Your task to perform on an android device: Open the Play Movies app and select the watchlist tab. Image 0: 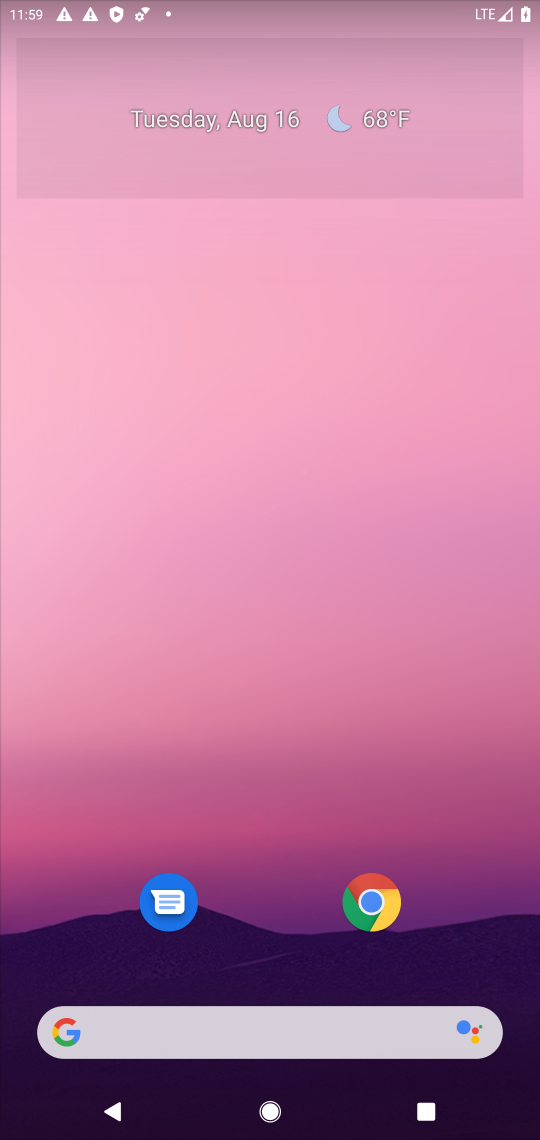
Step 0: drag from (254, 991) to (145, 34)
Your task to perform on an android device: Open the Play Movies app and select the watchlist tab. Image 1: 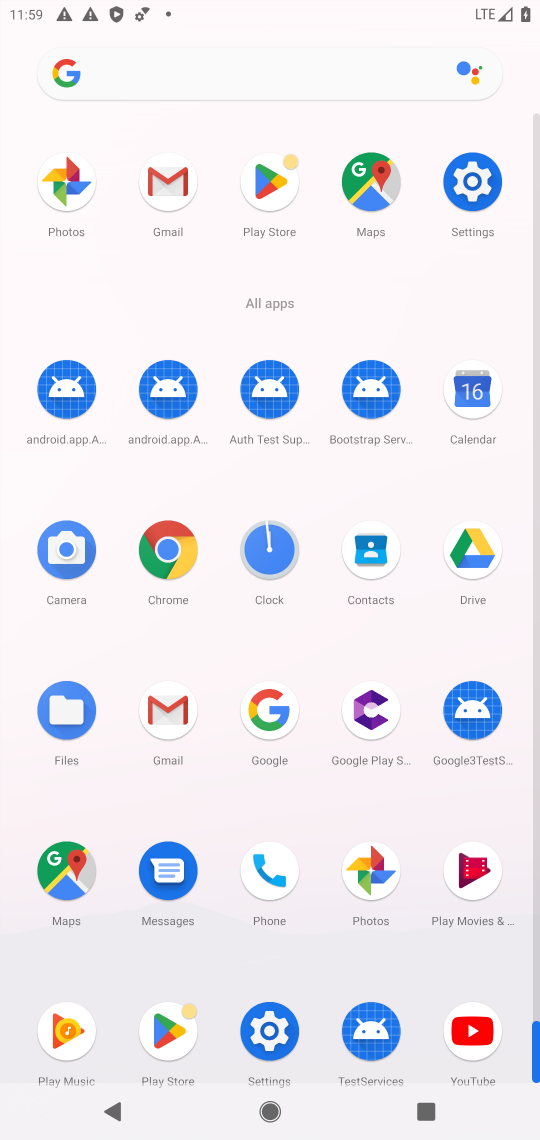
Step 1: click (470, 908)
Your task to perform on an android device: Open the Play Movies app and select the watchlist tab. Image 2: 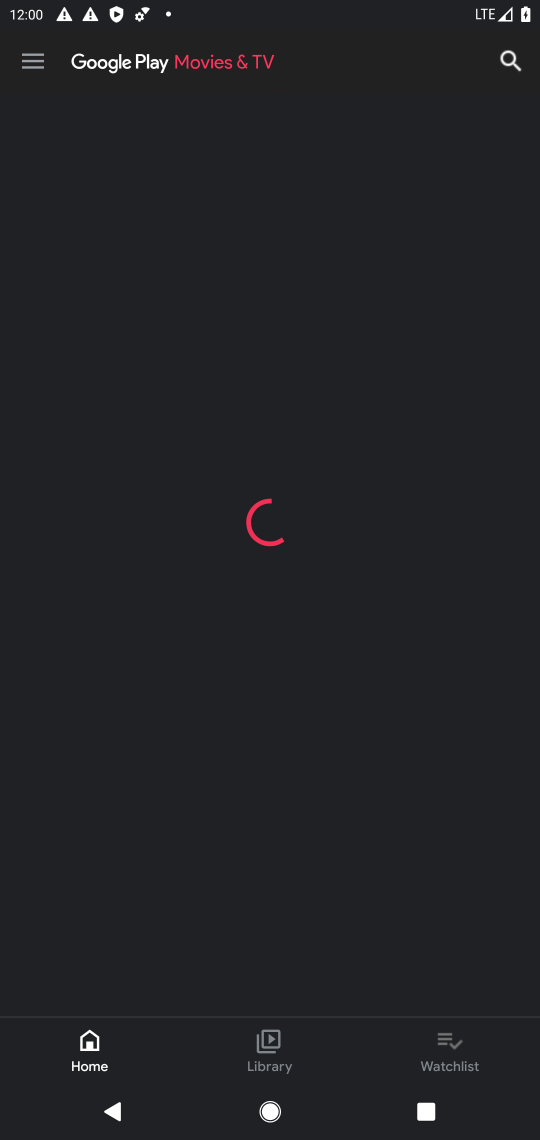
Step 2: click (438, 1043)
Your task to perform on an android device: Open the Play Movies app and select the watchlist tab. Image 3: 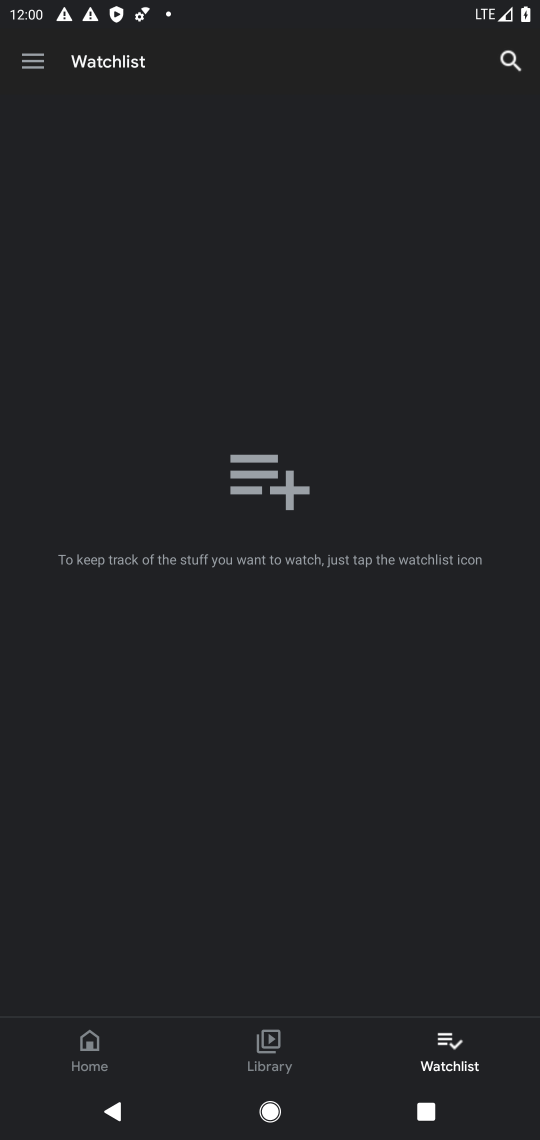
Step 3: task complete